Your task to perform on an android device: Open internet settings Image 0: 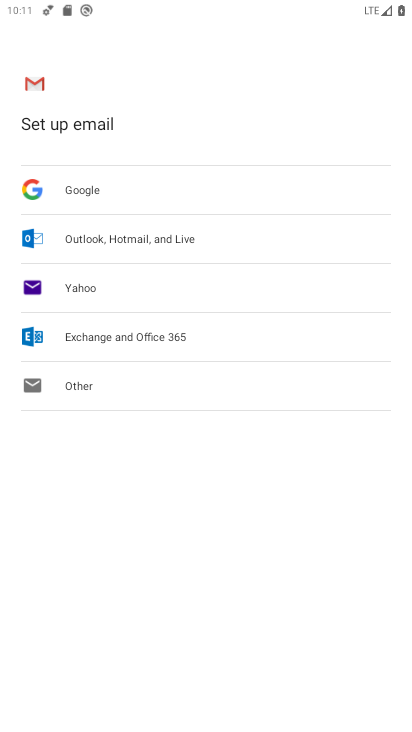
Step 0: press home button
Your task to perform on an android device: Open internet settings Image 1: 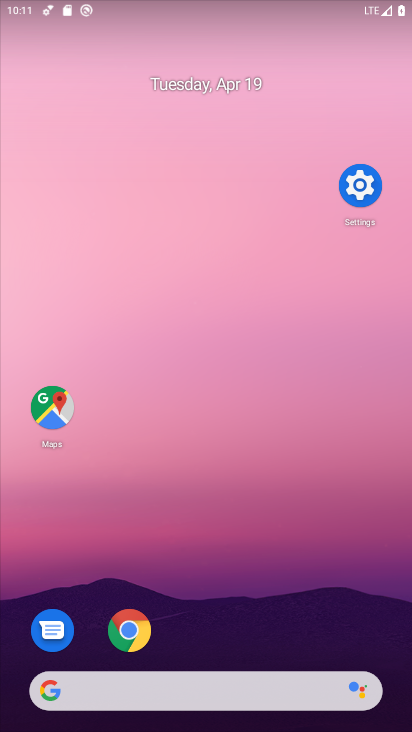
Step 1: drag from (241, 571) to (214, 150)
Your task to perform on an android device: Open internet settings Image 2: 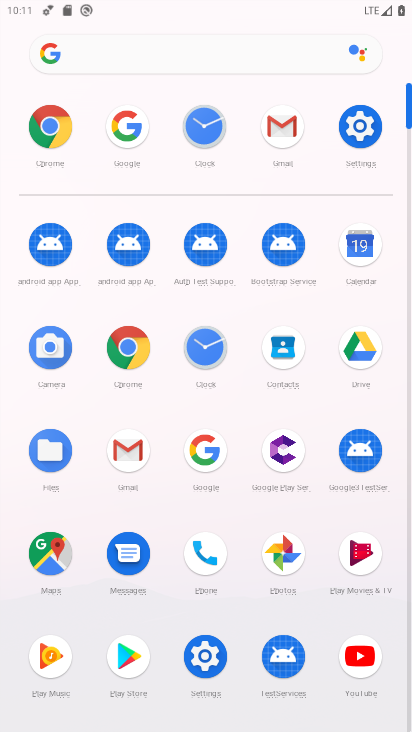
Step 2: click (368, 149)
Your task to perform on an android device: Open internet settings Image 3: 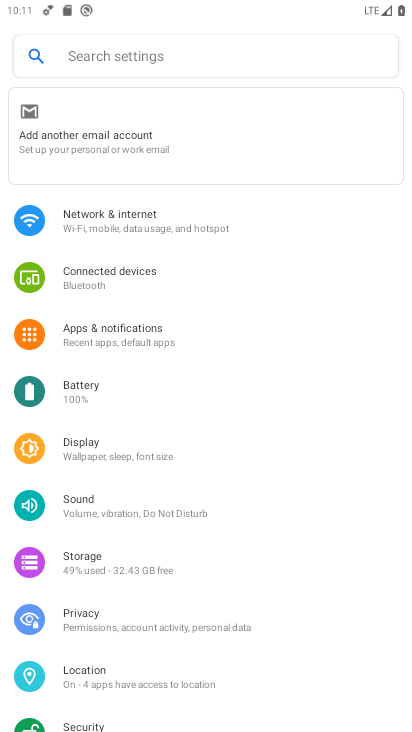
Step 3: click (179, 237)
Your task to perform on an android device: Open internet settings Image 4: 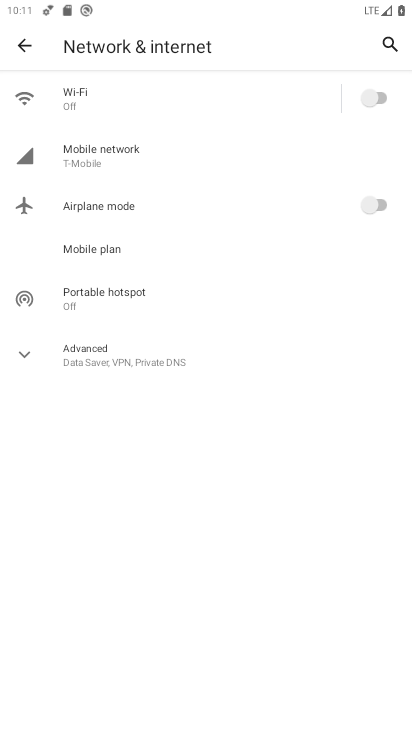
Step 4: click (147, 158)
Your task to perform on an android device: Open internet settings Image 5: 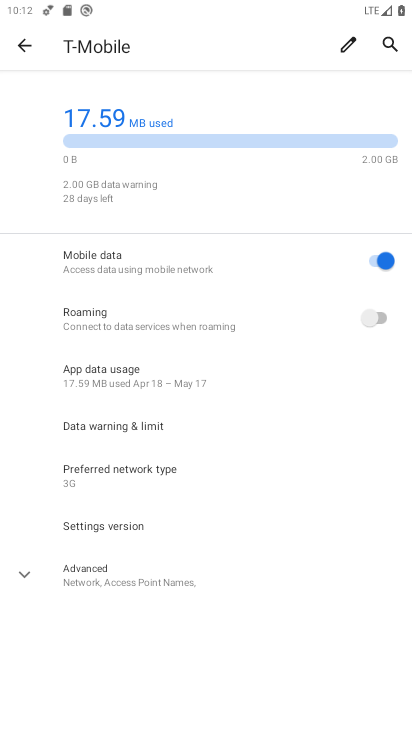
Step 5: task complete